Your task to perform on an android device: add a contact Image 0: 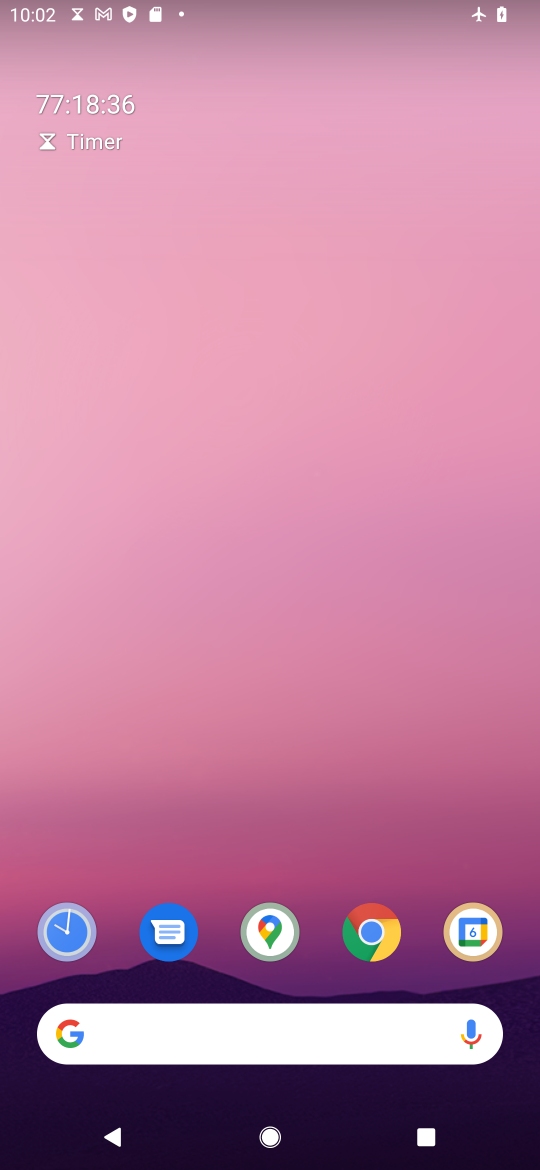
Step 0: drag from (313, 870) to (277, 186)
Your task to perform on an android device: add a contact Image 1: 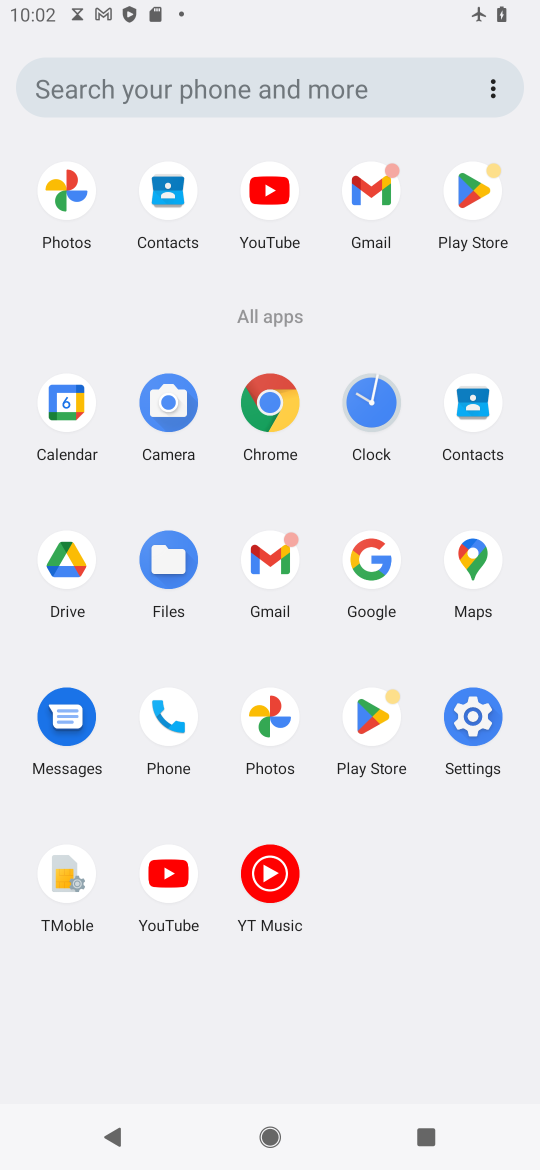
Step 1: click (487, 417)
Your task to perform on an android device: add a contact Image 2: 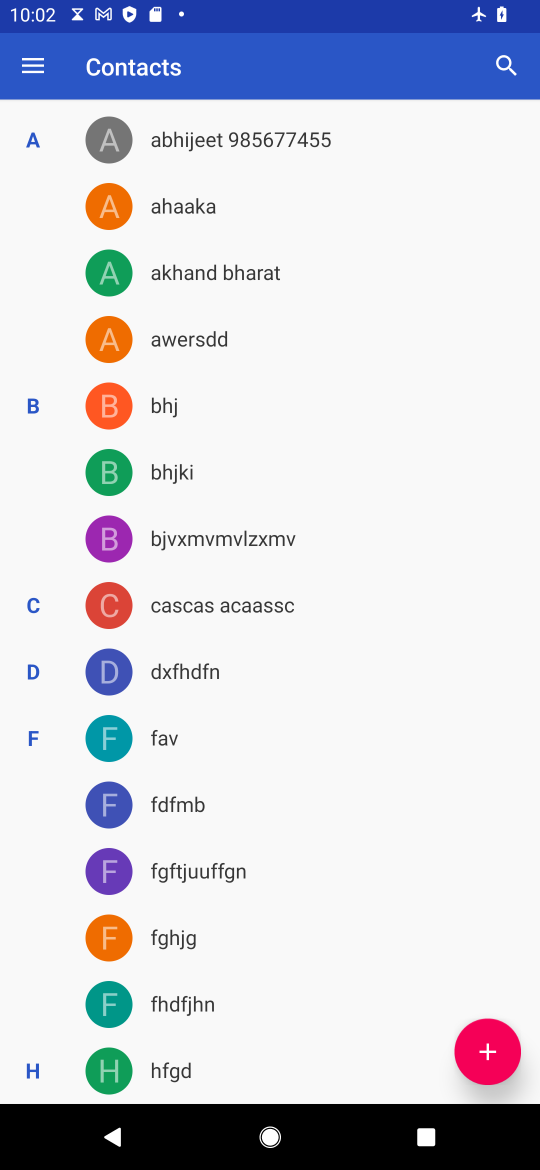
Step 2: click (500, 1043)
Your task to perform on an android device: add a contact Image 3: 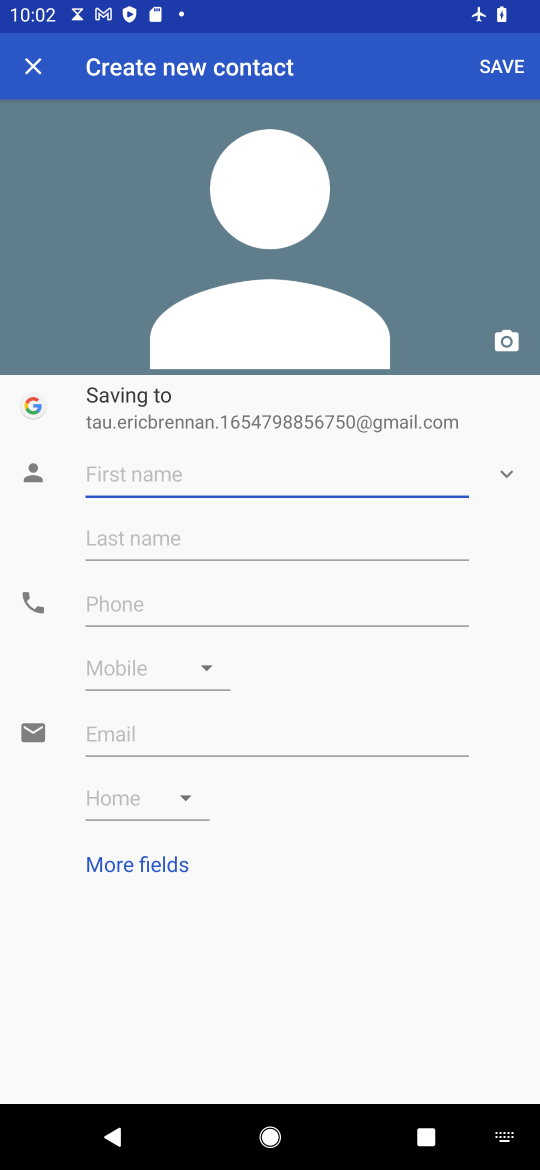
Step 3: type "vhvbjhbh"
Your task to perform on an android device: add a contact Image 4: 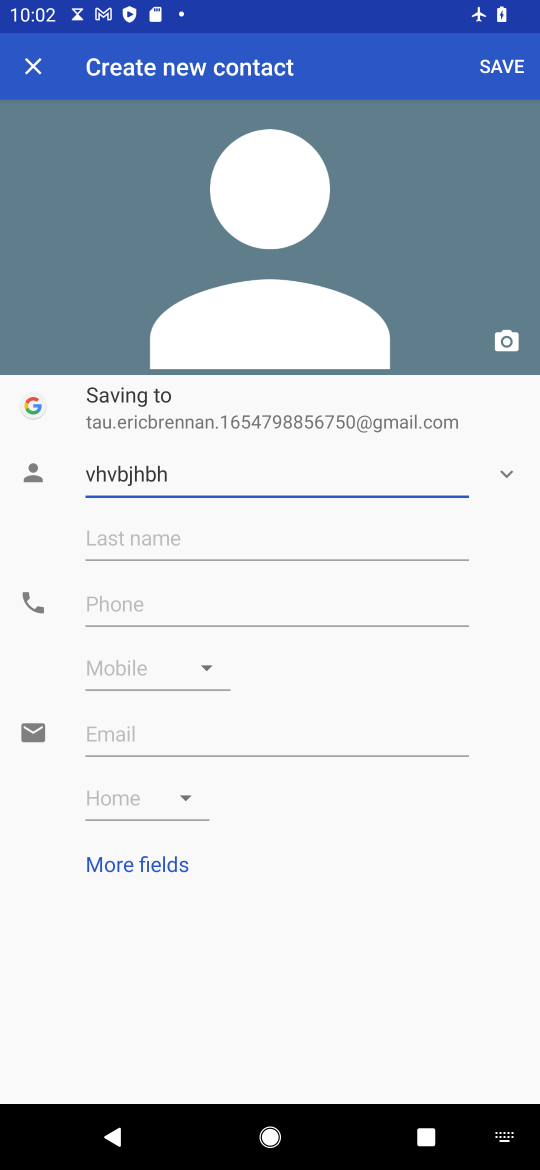
Step 4: click (281, 616)
Your task to perform on an android device: add a contact Image 5: 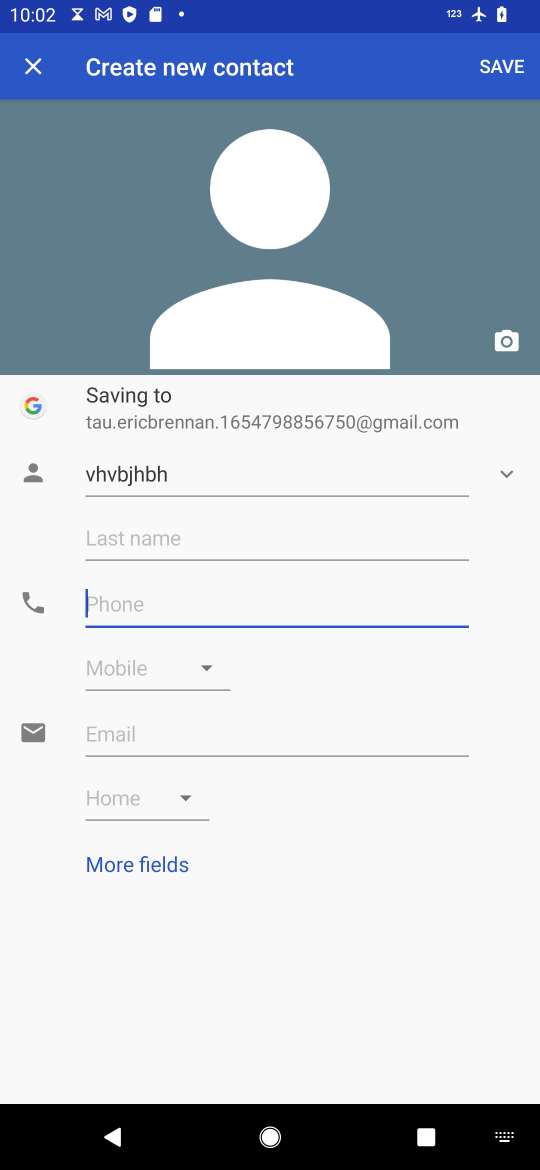
Step 5: type "767987"
Your task to perform on an android device: add a contact Image 6: 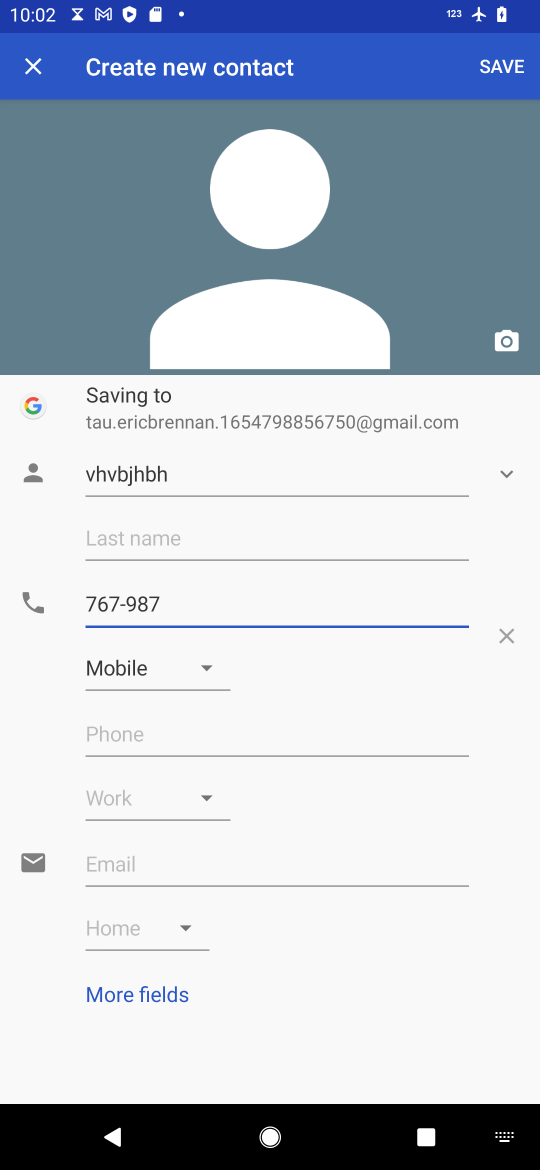
Step 6: click (502, 56)
Your task to perform on an android device: add a contact Image 7: 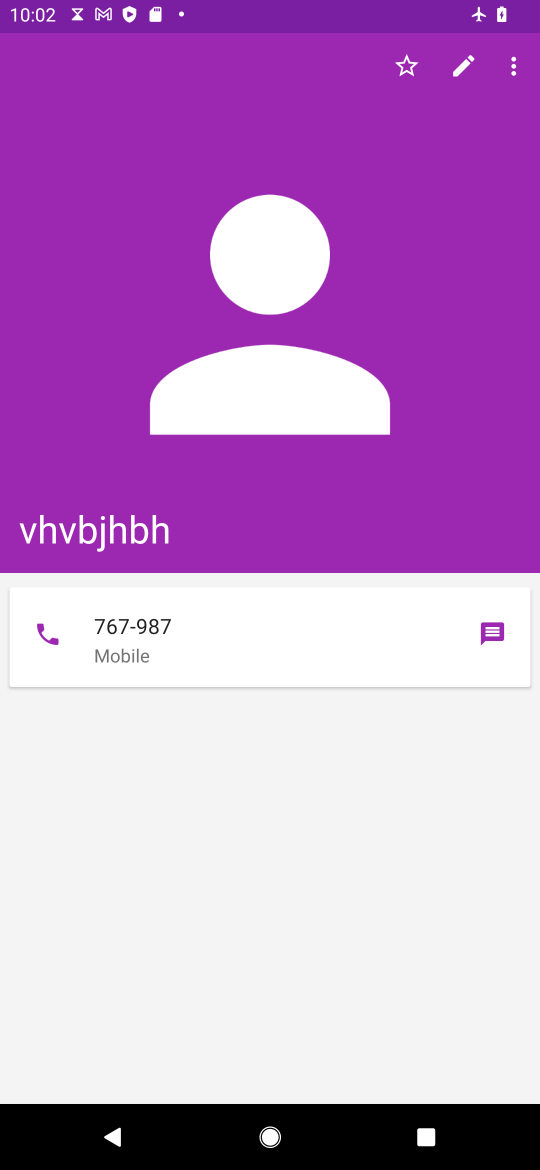
Step 7: task complete